Your task to perform on an android device: Open Wikipedia Image 0: 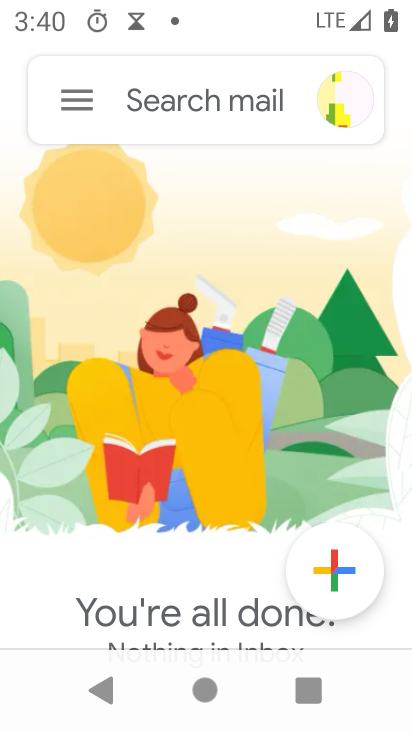
Step 0: press home button
Your task to perform on an android device: Open Wikipedia Image 1: 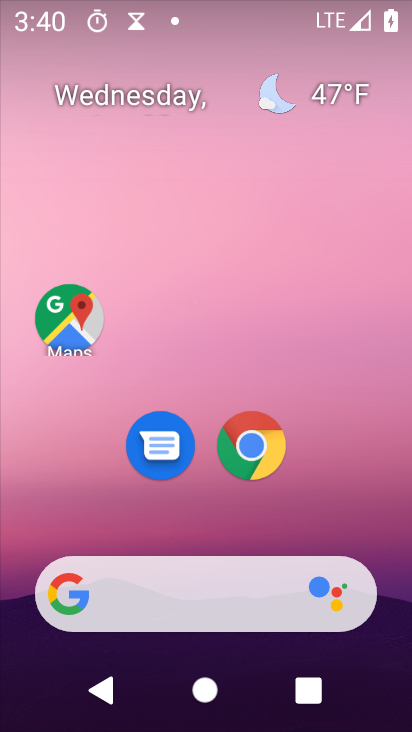
Step 1: click (258, 461)
Your task to perform on an android device: Open Wikipedia Image 2: 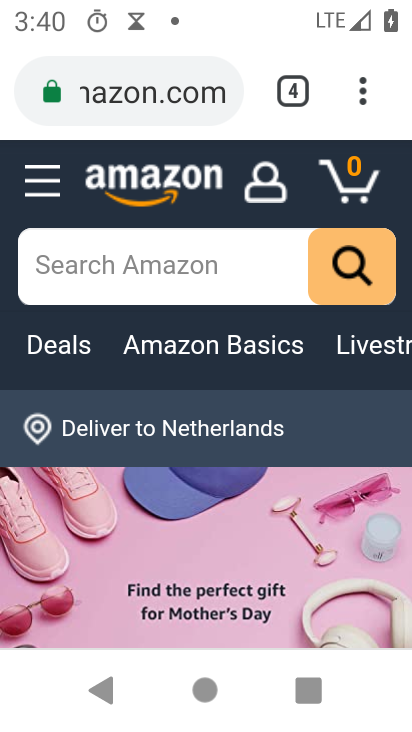
Step 2: click (367, 93)
Your task to perform on an android device: Open Wikipedia Image 3: 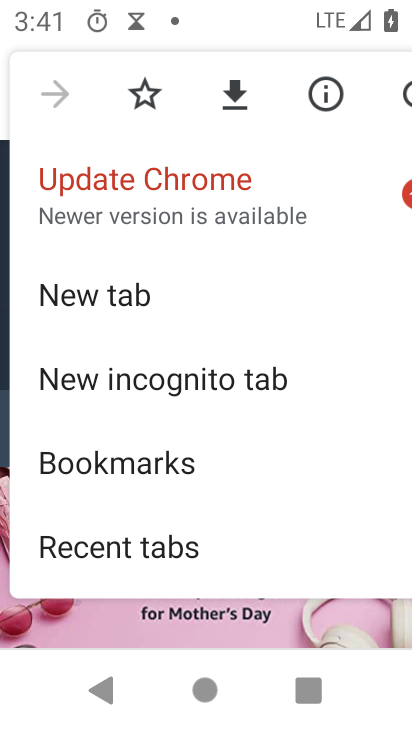
Step 3: click (113, 310)
Your task to perform on an android device: Open Wikipedia Image 4: 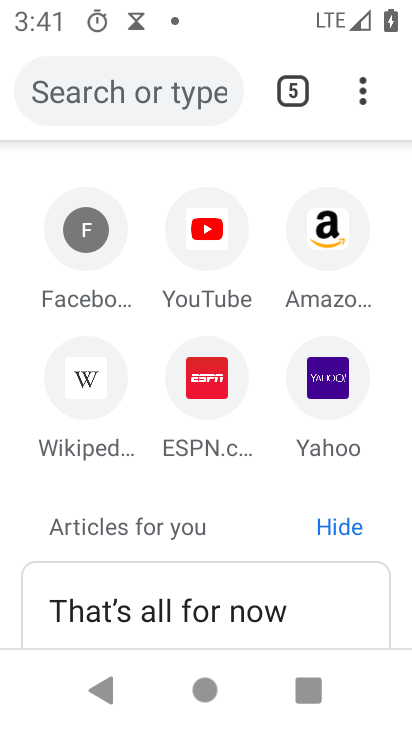
Step 4: click (86, 381)
Your task to perform on an android device: Open Wikipedia Image 5: 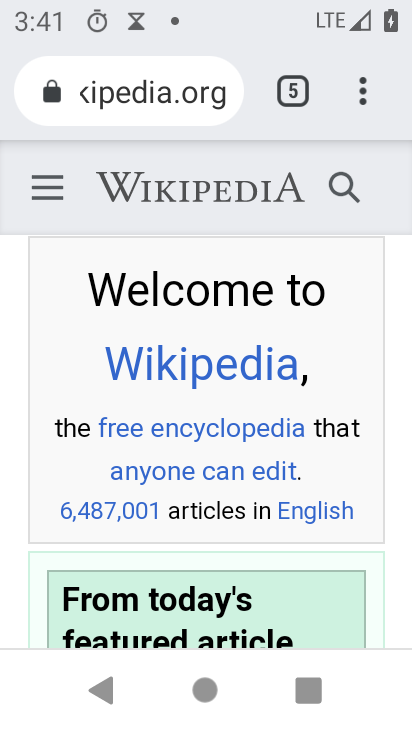
Step 5: task complete